Your task to perform on an android device: turn on priority inbox in the gmail app Image 0: 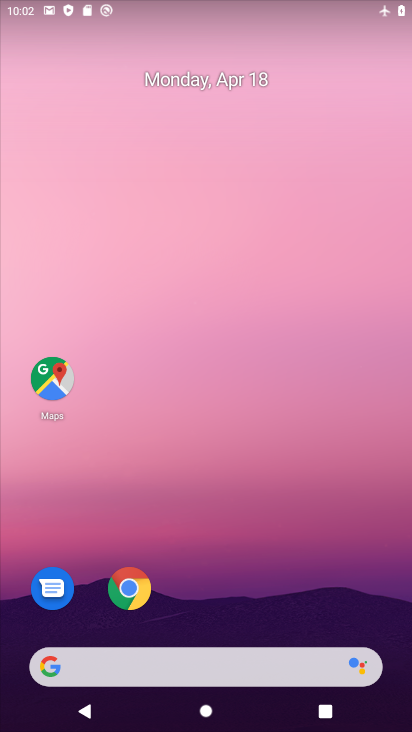
Step 0: drag from (142, 660) to (117, 382)
Your task to perform on an android device: turn on priority inbox in the gmail app Image 1: 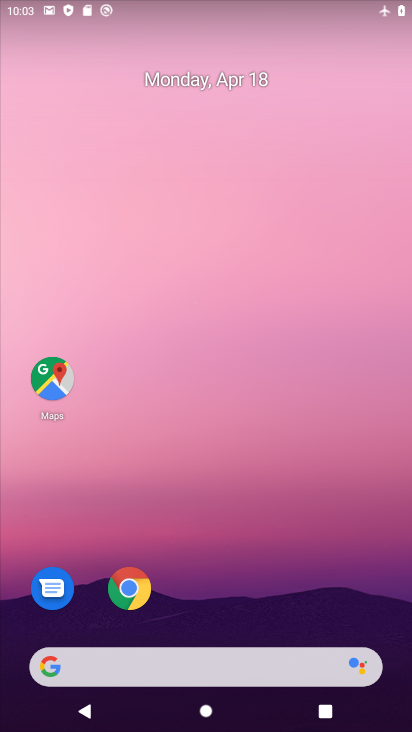
Step 1: drag from (125, 667) to (101, 213)
Your task to perform on an android device: turn on priority inbox in the gmail app Image 2: 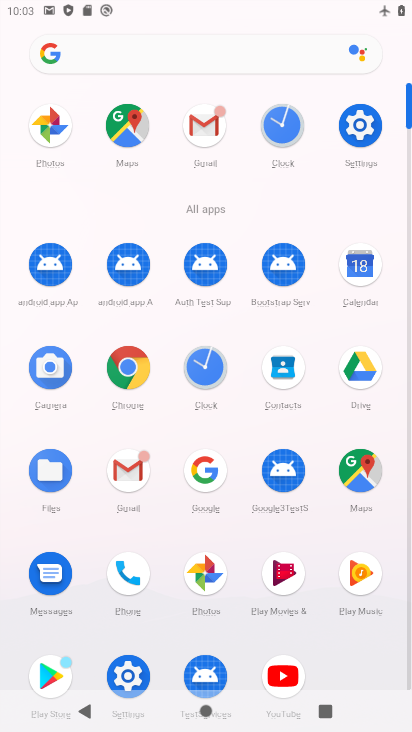
Step 2: click (129, 466)
Your task to perform on an android device: turn on priority inbox in the gmail app Image 3: 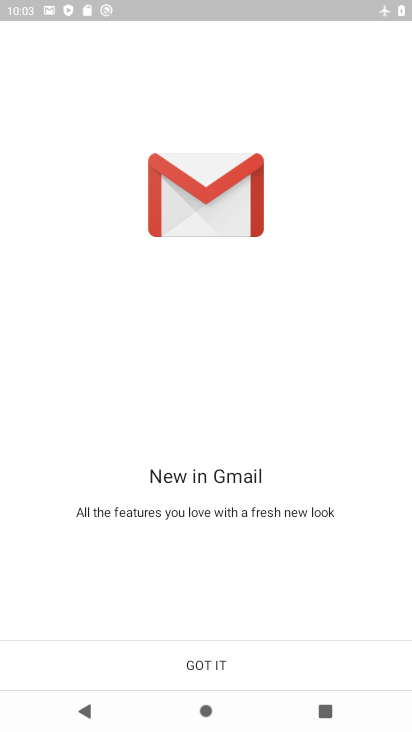
Step 3: click (179, 672)
Your task to perform on an android device: turn on priority inbox in the gmail app Image 4: 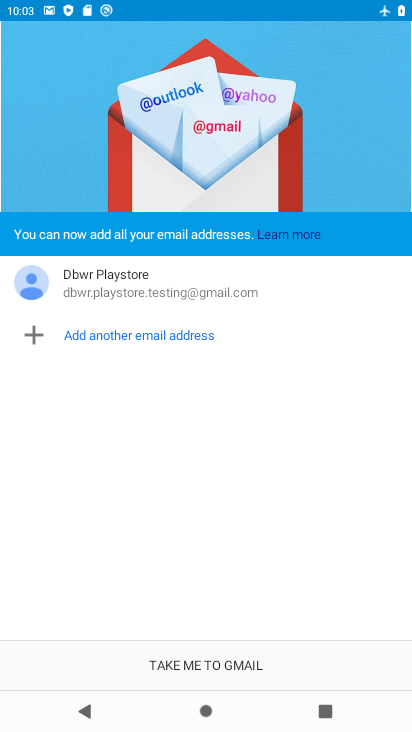
Step 4: click (179, 672)
Your task to perform on an android device: turn on priority inbox in the gmail app Image 5: 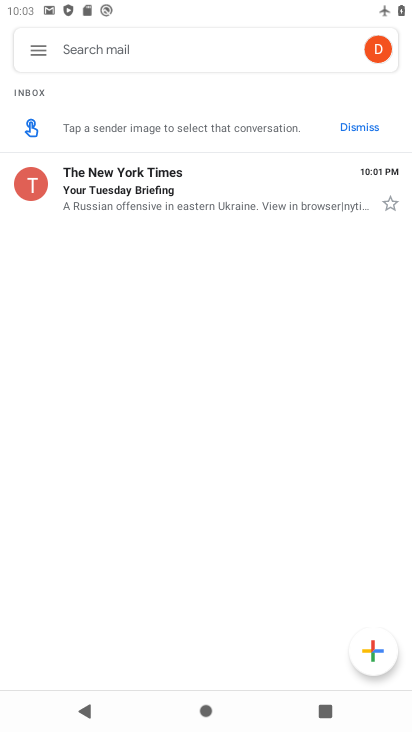
Step 5: click (50, 48)
Your task to perform on an android device: turn on priority inbox in the gmail app Image 6: 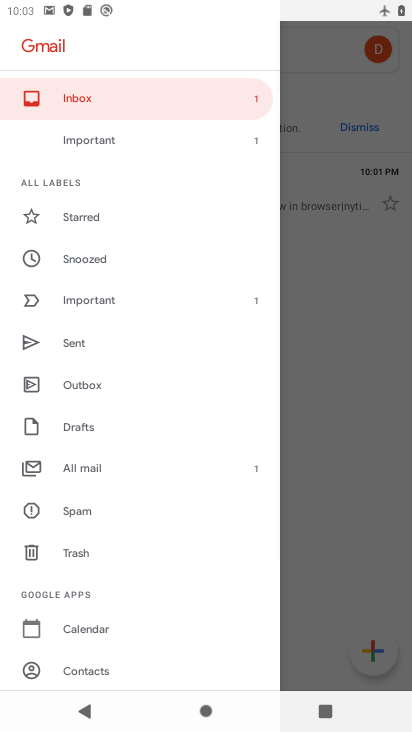
Step 6: drag from (103, 594) to (61, 154)
Your task to perform on an android device: turn on priority inbox in the gmail app Image 7: 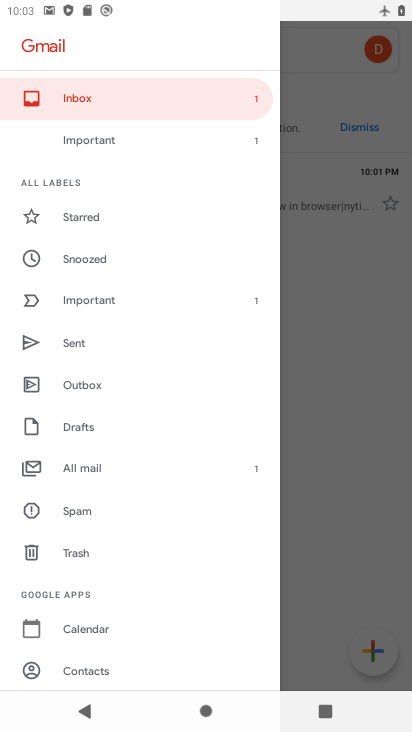
Step 7: drag from (67, 660) to (19, 169)
Your task to perform on an android device: turn on priority inbox in the gmail app Image 8: 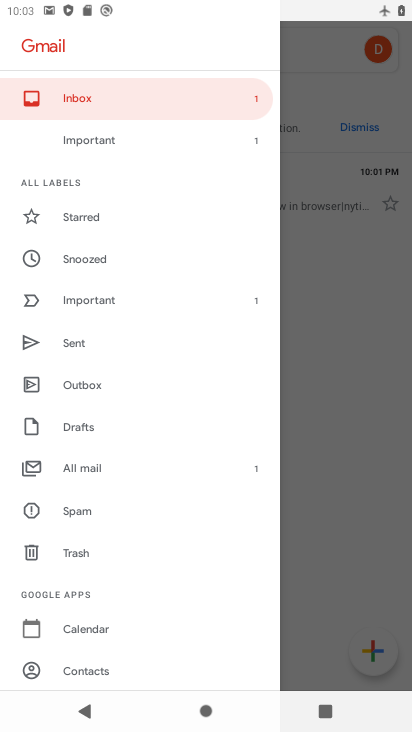
Step 8: drag from (124, 702) to (102, 383)
Your task to perform on an android device: turn on priority inbox in the gmail app Image 9: 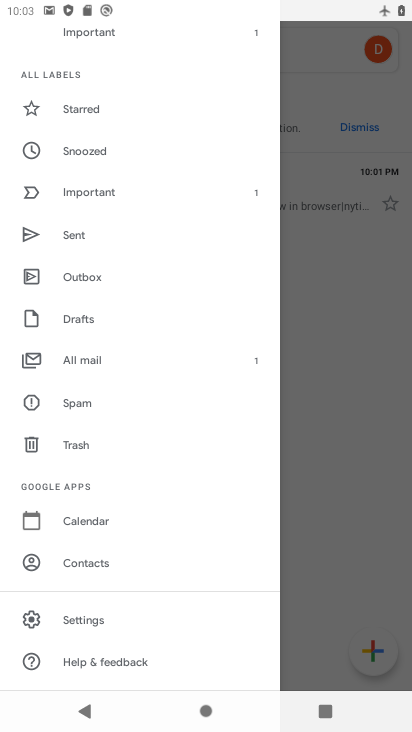
Step 9: click (69, 617)
Your task to perform on an android device: turn on priority inbox in the gmail app Image 10: 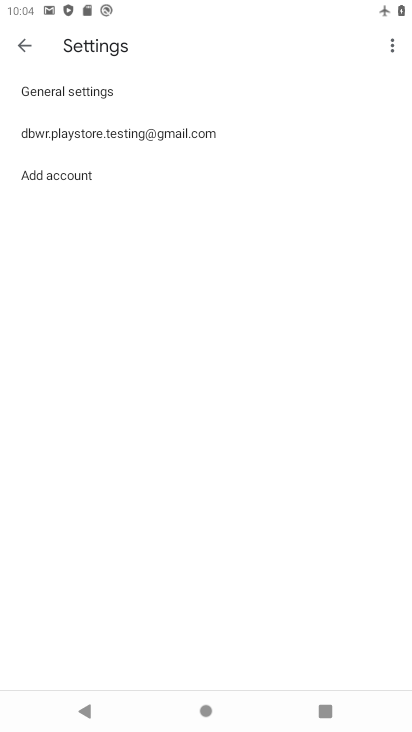
Step 10: click (85, 143)
Your task to perform on an android device: turn on priority inbox in the gmail app Image 11: 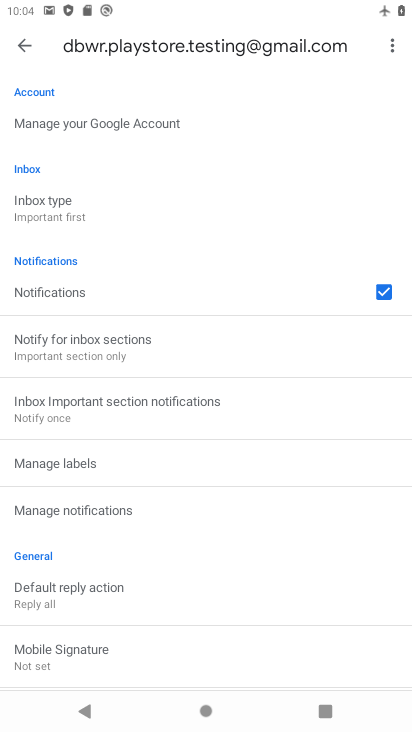
Step 11: click (66, 220)
Your task to perform on an android device: turn on priority inbox in the gmail app Image 12: 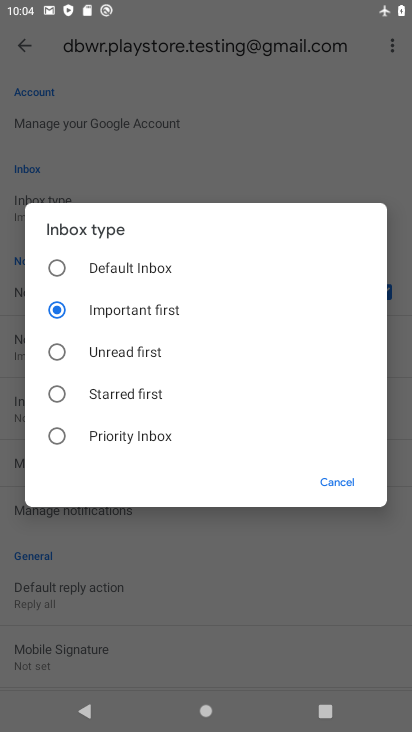
Step 12: click (105, 439)
Your task to perform on an android device: turn on priority inbox in the gmail app Image 13: 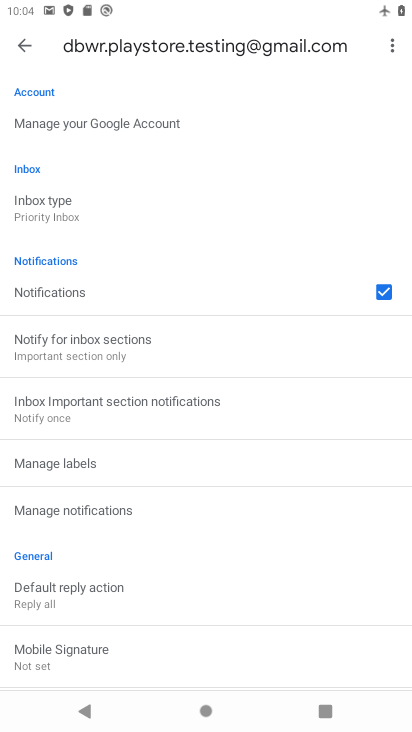
Step 13: task complete